Your task to perform on an android device: remove spam from my inbox in the gmail app Image 0: 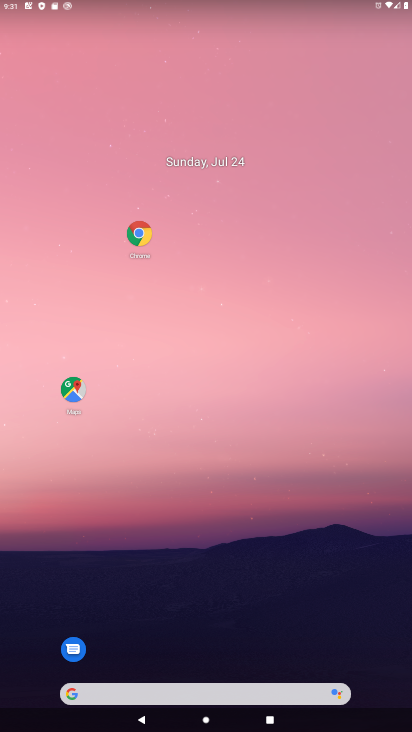
Step 0: drag from (177, 606) to (86, 0)
Your task to perform on an android device: remove spam from my inbox in the gmail app Image 1: 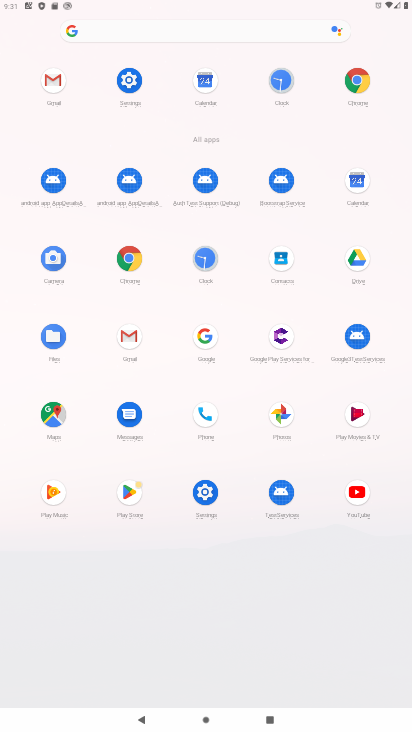
Step 1: click (53, 80)
Your task to perform on an android device: remove spam from my inbox in the gmail app Image 2: 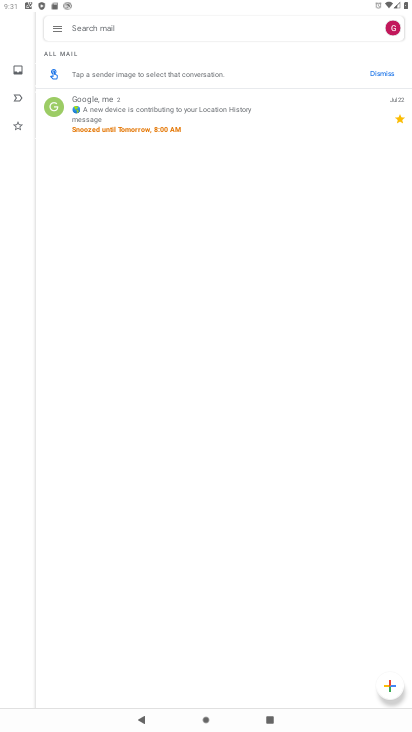
Step 2: click (58, 26)
Your task to perform on an android device: remove spam from my inbox in the gmail app Image 3: 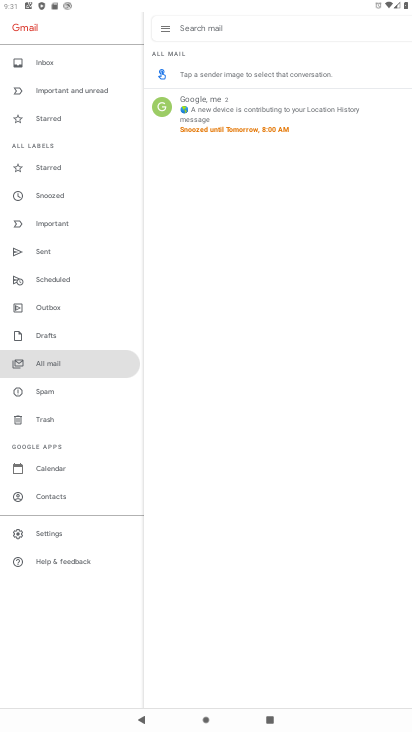
Step 3: click (55, 387)
Your task to perform on an android device: remove spam from my inbox in the gmail app Image 4: 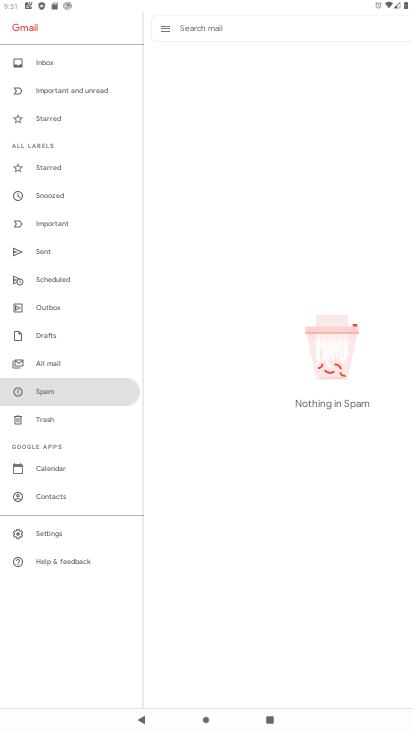
Step 4: task complete